Your task to perform on an android device: Search for hotels in Miami Image 0: 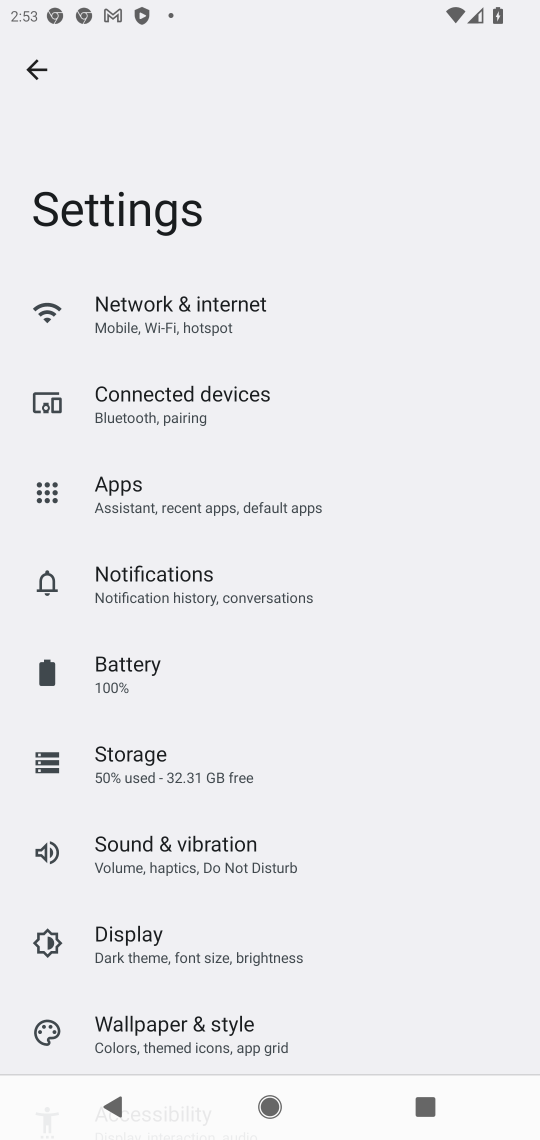
Step 0: press home button
Your task to perform on an android device: Search for hotels in Miami Image 1: 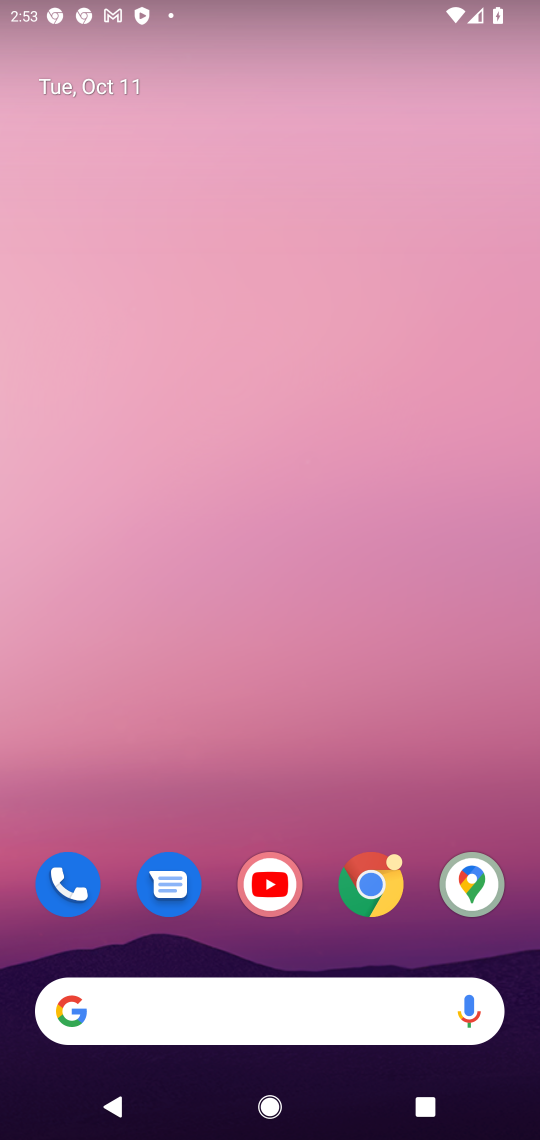
Step 1: click (371, 888)
Your task to perform on an android device: Search for hotels in Miami Image 2: 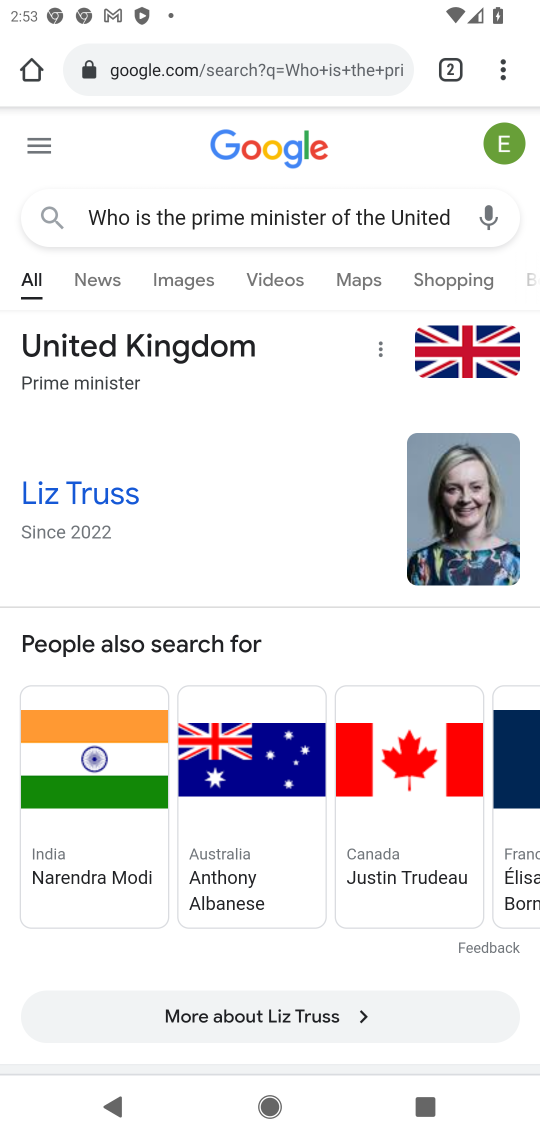
Step 2: click (311, 68)
Your task to perform on an android device: Search for hotels in Miami Image 3: 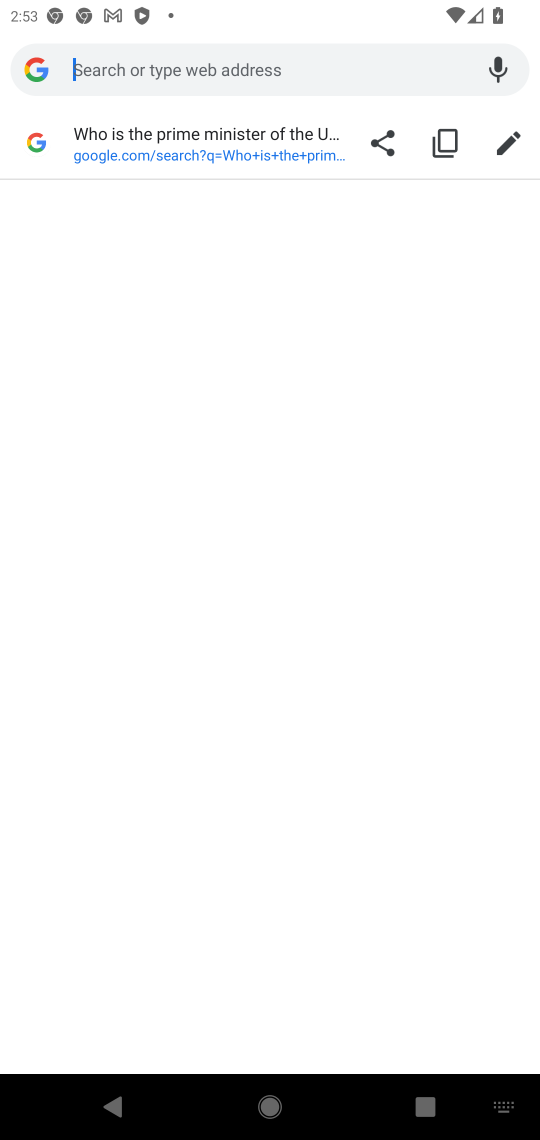
Step 3: type "Hotels in Miami"
Your task to perform on an android device: Search for hotels in Miami Image 4: 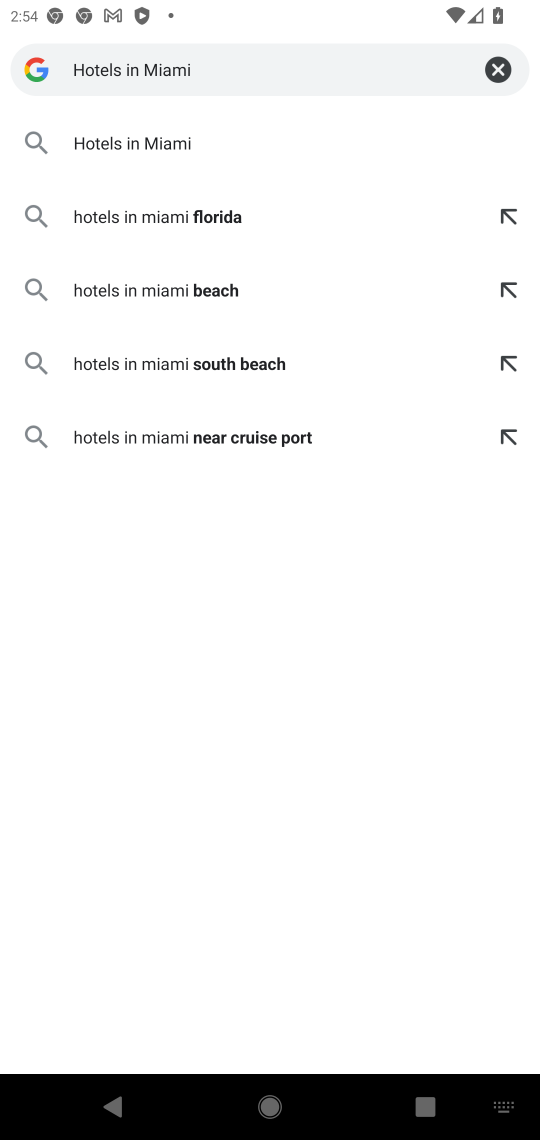
Step 4: click (173, 138)
Your task to perform on an android device: Search for hotels in Miami Image 5: 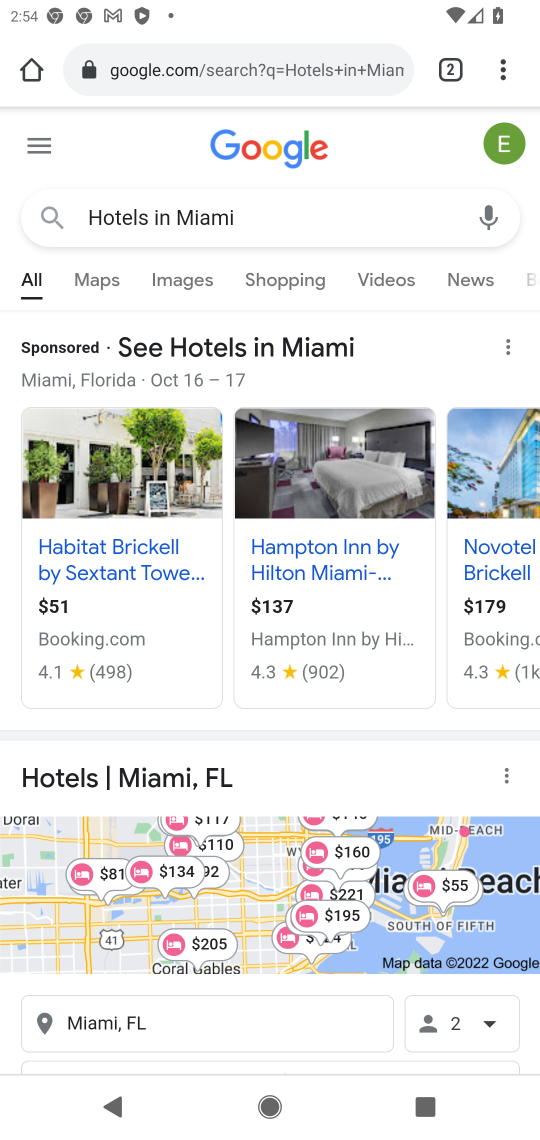
Step 5: task complete